Your task to perform on an android device: Open display settings Image 0: 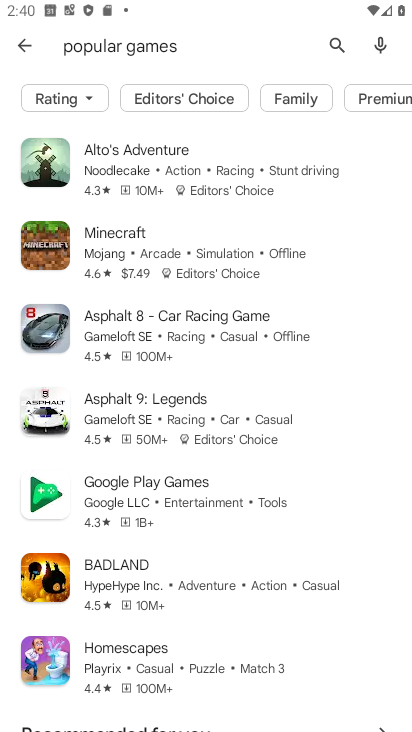
Step 0: press home button
Your task to perform on an android device: Open display settings Image 1: 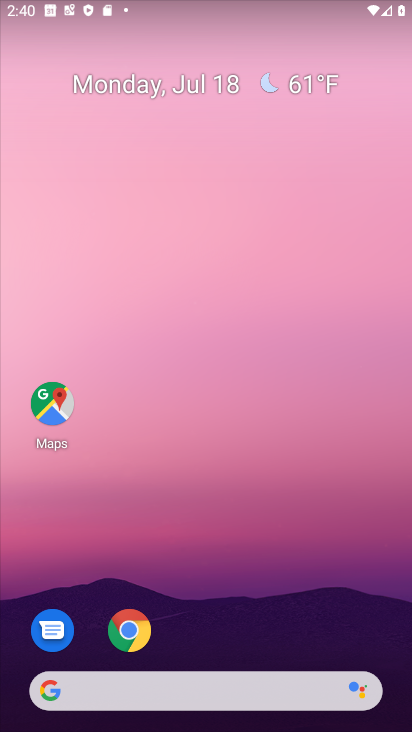
Step 1: drag from (264, 596) to (234, 27)
Your task to perform on an android device: Open display settings Image 2: 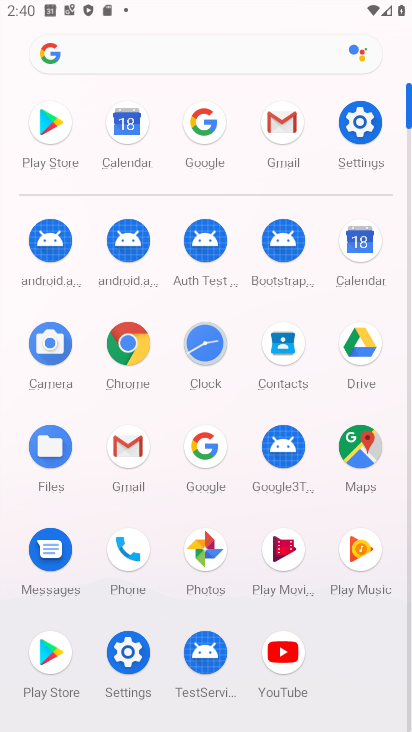
Step 2: click (359, 128)
Your task to perform on an android device: Open display settings Image 3: 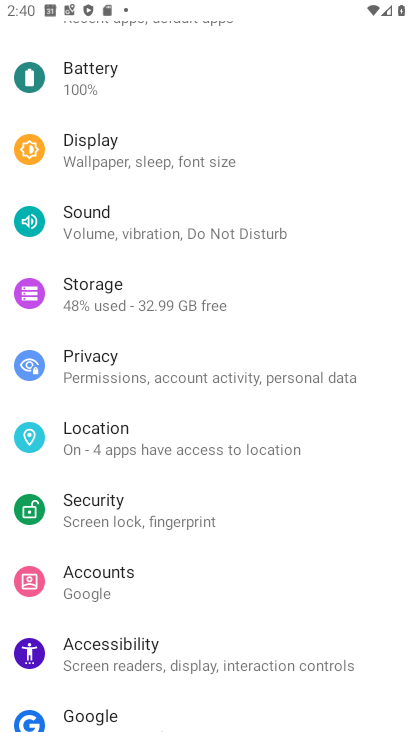
Step 3: click (155, 154)
Your task to perform on an android device: Open display settings Image 4: 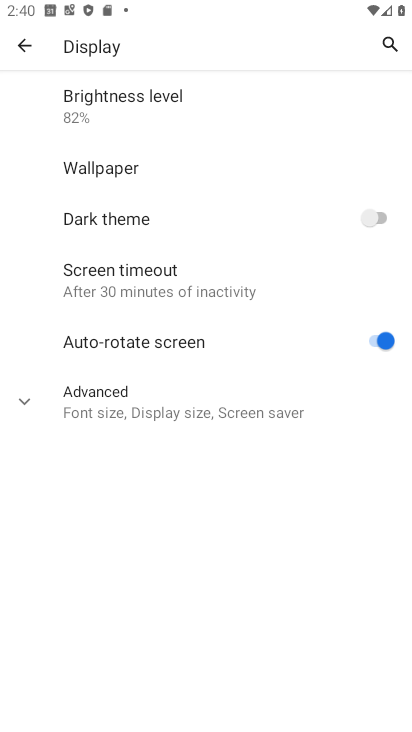
Step 4: click (27, 394)
Your task to perform on an android device: Open display settings Image 5: 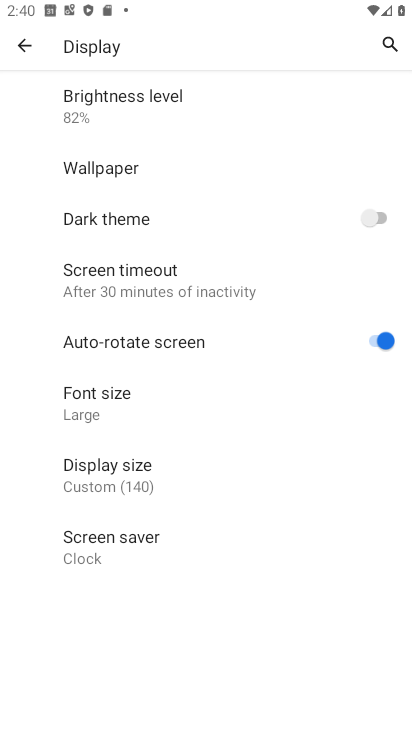
Step 5: task complete